Your task to perform on an android device: search for starred emails in the gmail app Image 0: 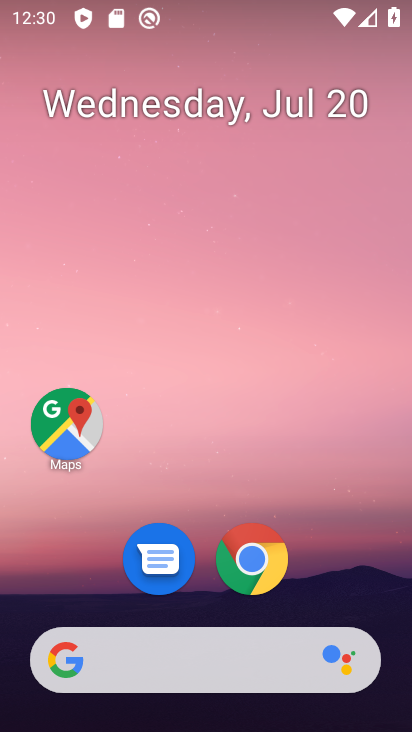
Step 0: drag from (365, 573) to (352, 78)
Your task to perform on an android device: search for starred emails in the gmail app Image 1: 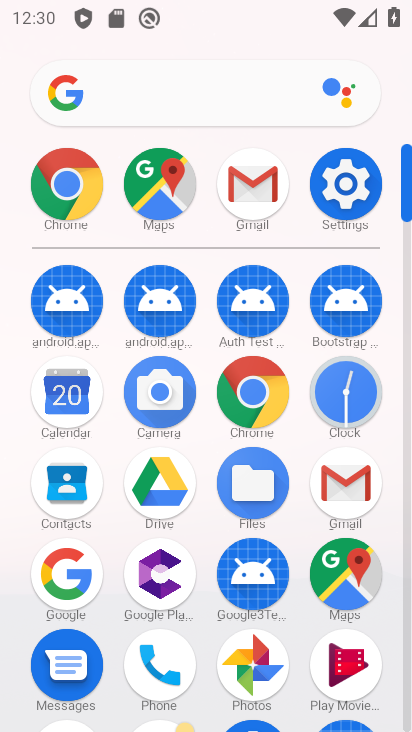
Step 1: click (349, 482)
Your task to perform on an android device: search for starred emails in the gmail app Image 2: 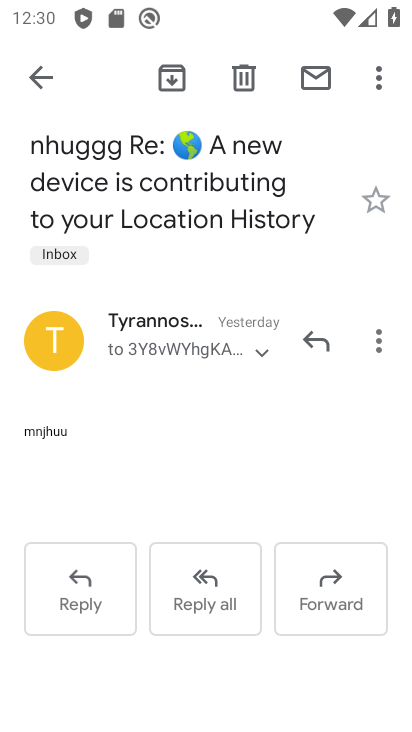
Step 2: press back button
Your task to perform on an android device: search for starred emails in the gmail app Image 3: 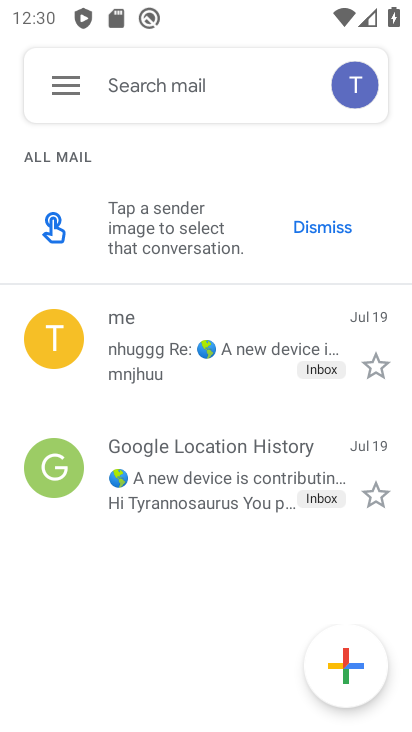
Step 3: click (65, 81)
Your task to perform on an android device: search for starred emails in the gmail app Image 4: 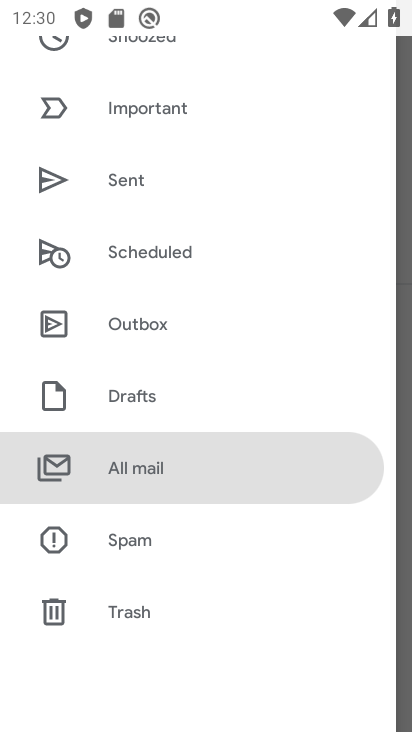
Step 4: drag from (287, 138) to (300, 340)
Your task to perform on an android device: search for starred emails in the gmail app Image 5: 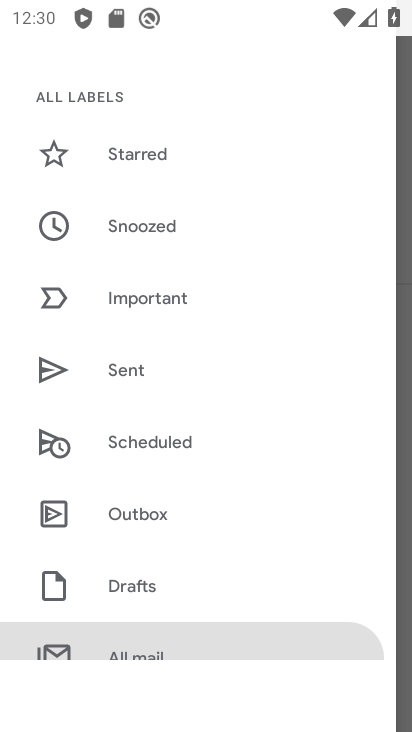
Step 5: drag from (272, 171) to (273, 328)
Your task to perform on an android device: search for starred emails in the gmail app Image 6: 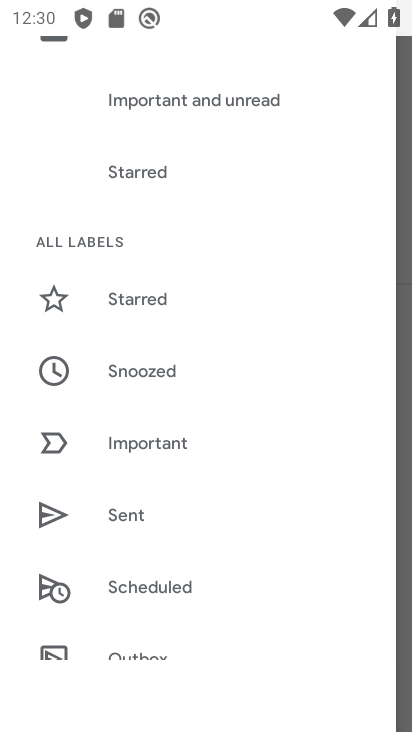
Step 6: click (177, 296)
Your task to perform on an android device: search for starred emails in the gmail app Image 7: 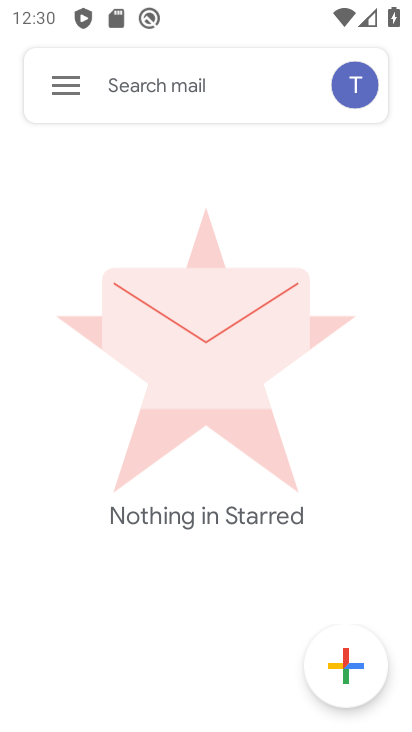
Step 7: task complete